Your task to perform on an android device: Open Maps and search for coffee Image 0: 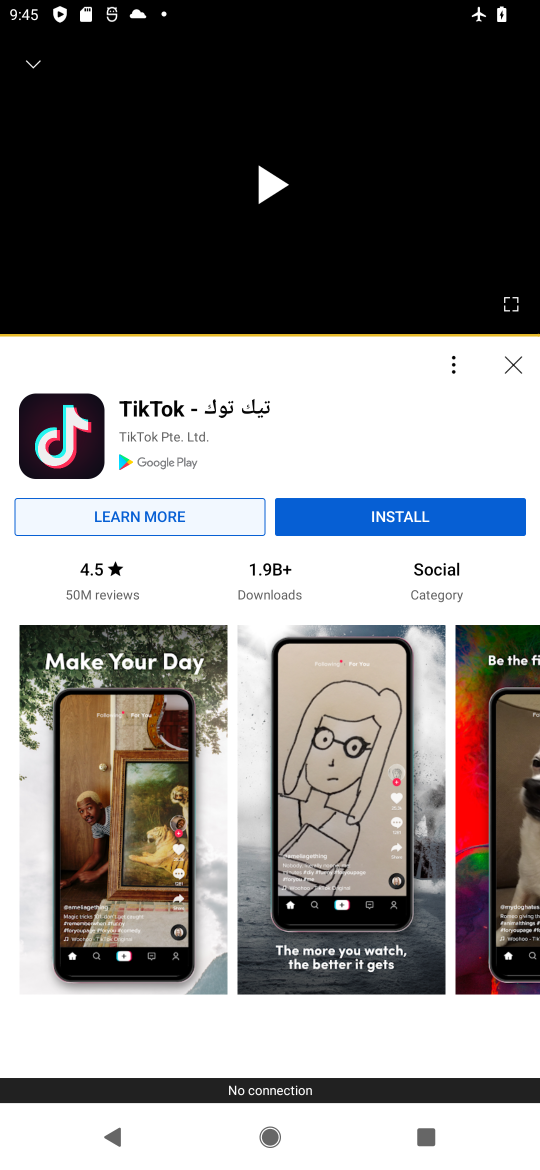
Step 0: press home button
Your task to perform on an android device: Open Maps and search for coffee Image 1: 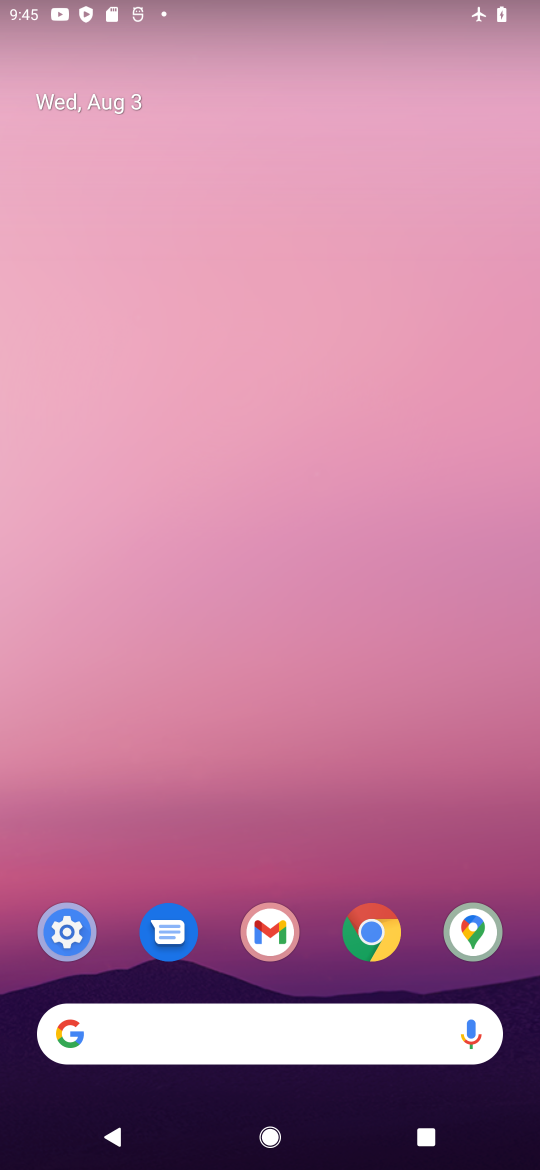
Step 1: drag from (379, 886) to (268, 36)
Your task to perform on an android device: Open Maps and search for coffee Image 2: 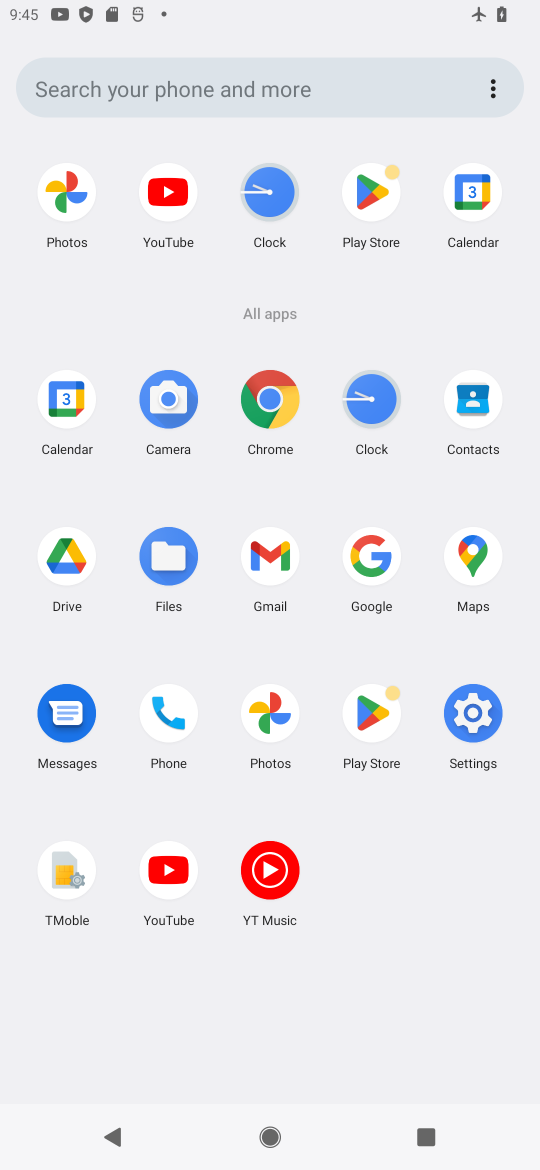
Step 2: click (465, 556)
Your task to perform on an android device: Open Maps and search for coffee Image 3: 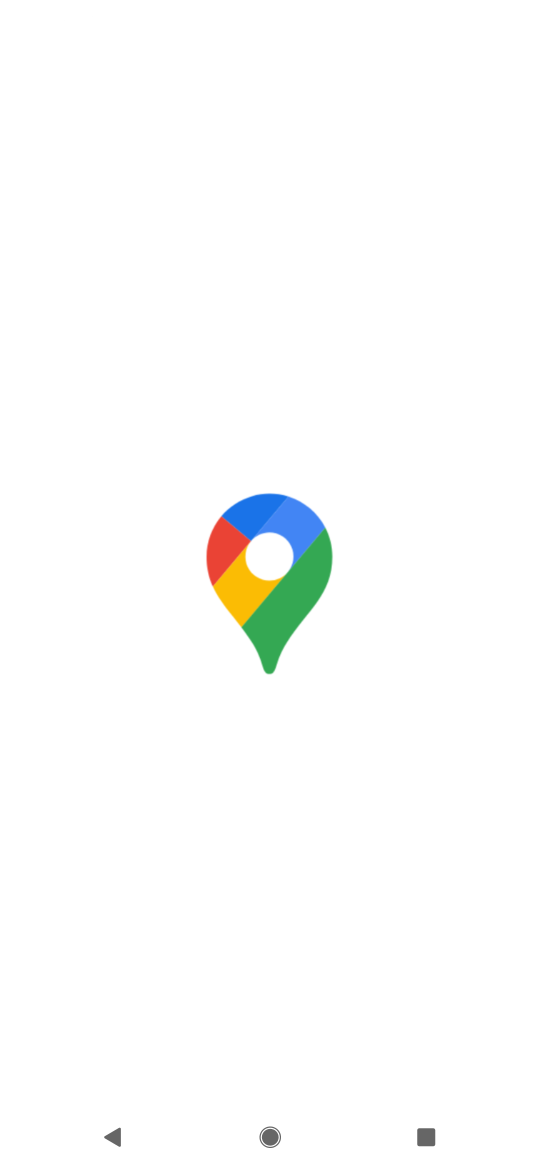
Step 3: task complete